Your task to perform on an android device: empty trash in google photos Image 0: 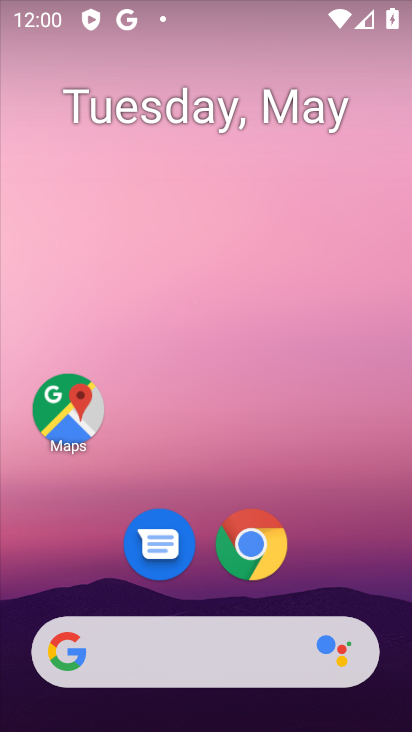
Step 0: drag from (224, 597) to (250, 184)
Your task to perform on an android device: empty trash in google photos Image 1: 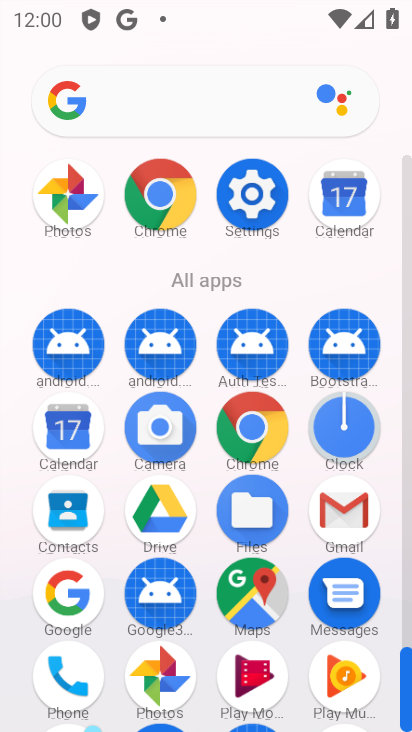
Step 1: click (163, 653)
Your task to perform on an android device: empty trash in google photos Image 2: 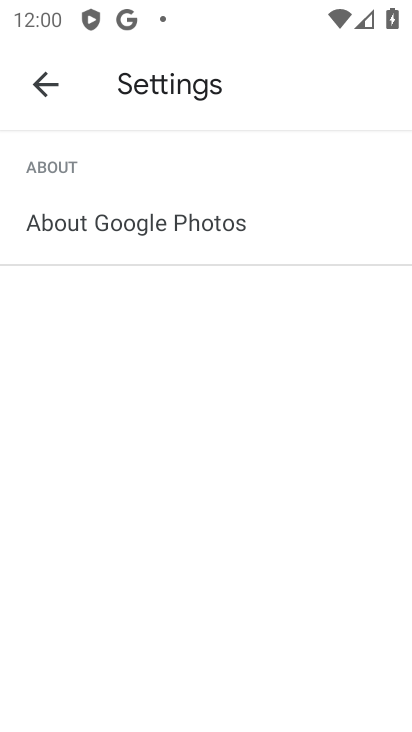
Step 2: click (39, 62)
Your task to perform on an android device: empty trash in google photos Image 3: 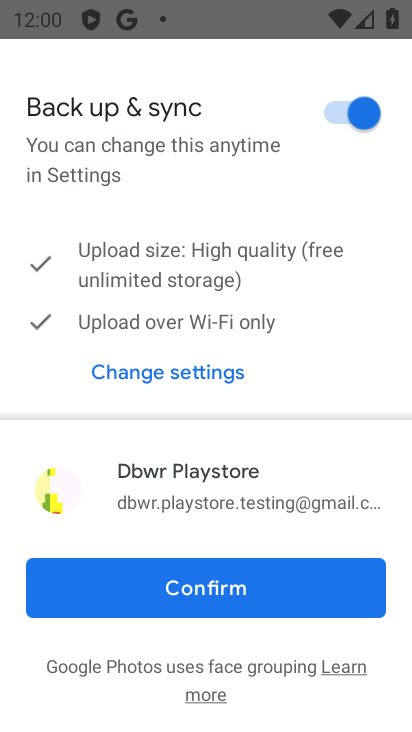
Step 3: click (39, 71)
Your task to perform on an android device: empty trash in google photos Image 4: 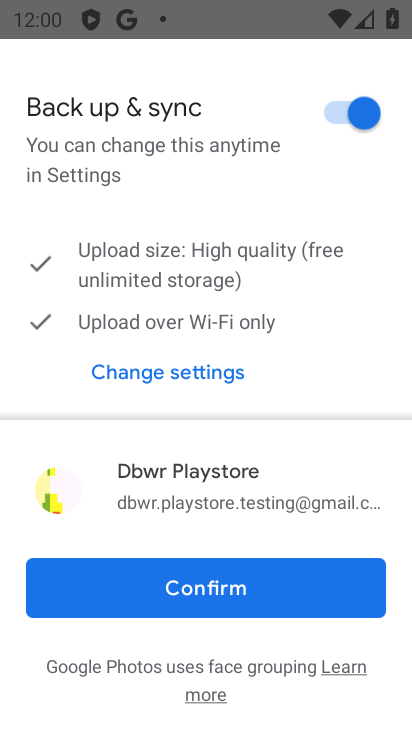
Step 4: click (138, 573)
Your task to perform on an android device: empty trash in google photos Image 5: 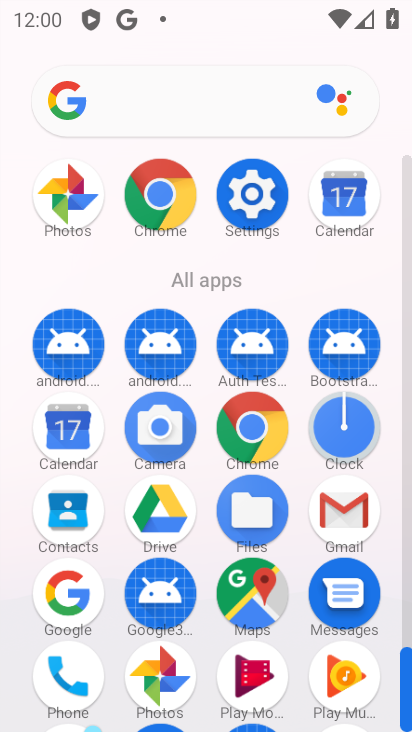
Step 5: click (173, 651)
Your task to perform on an android device: empty trash in google photos Image 6: 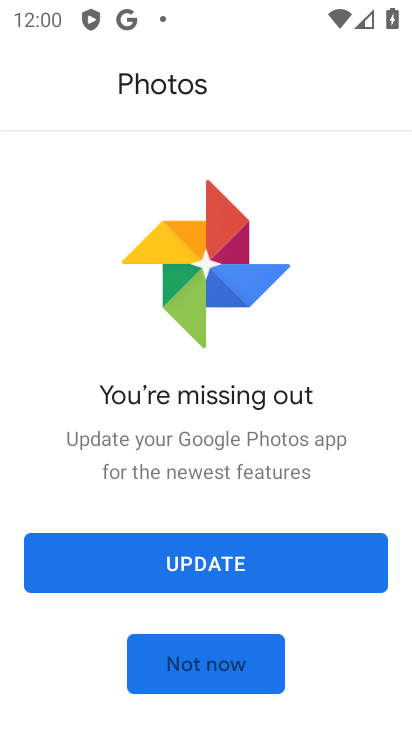
Step 6: click (216, 662)
Your task to perform on an android device: empty trash in google photos Image 7: 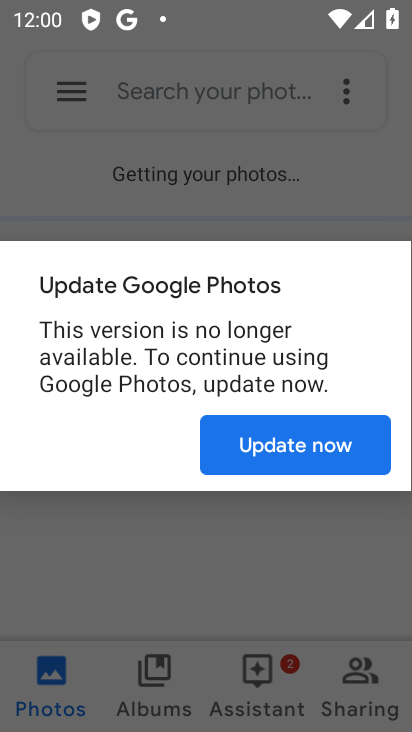
Step 7: click (244, 432)
Your task to perform on an android device: empty trash in google photos Image 8: 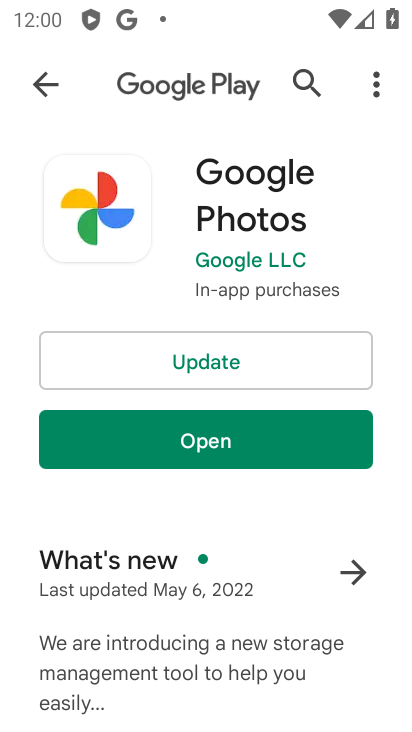
Step 8: click (228, 437)
Your task to perform on an android device: empty trash in google photos Image 9: 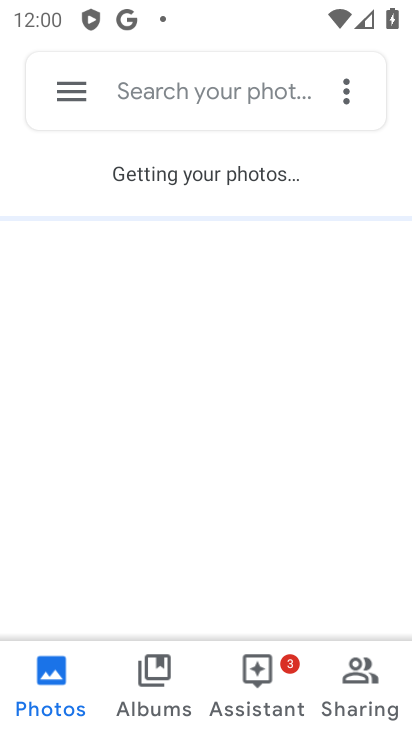
Step 9: click (78, 77)
Your task to perform on an android device: empty trash in google photos Image 10: 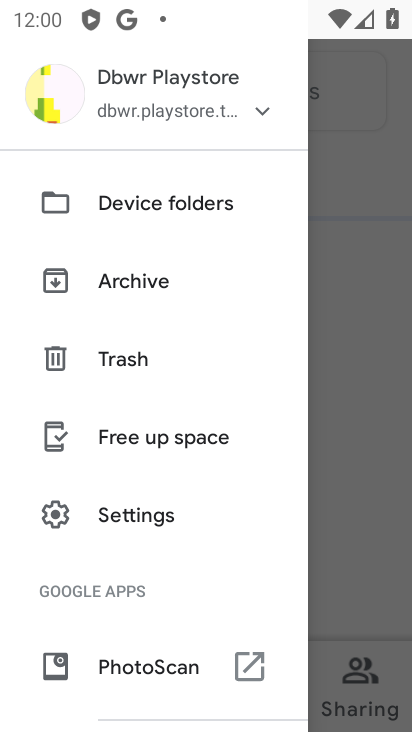
Step 10: click (150, 362)
Your task to perform on an android device: empty trash in google photos Image 11: 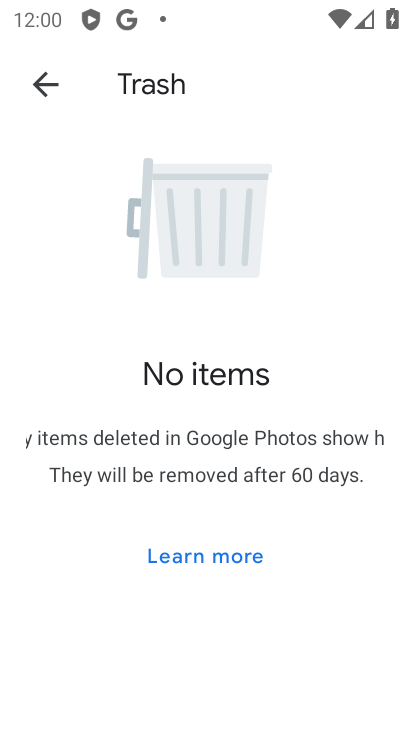
Step 11: task complete